Your task to perform on an android device: Go to Amazon Image 0: 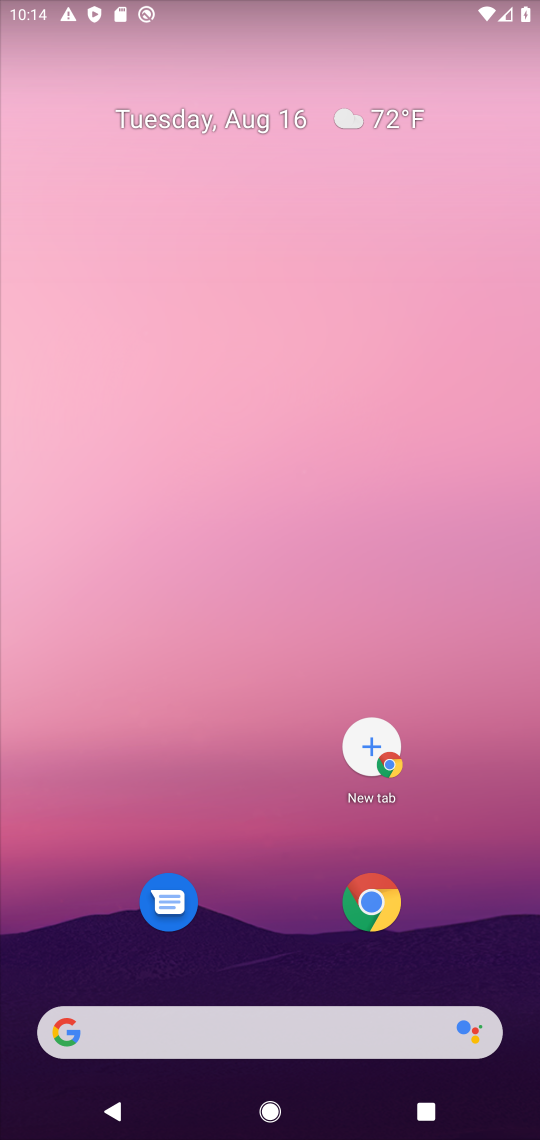
Step 0: press home button
Your task to perform on an android device: Go to Amazon Image 1: 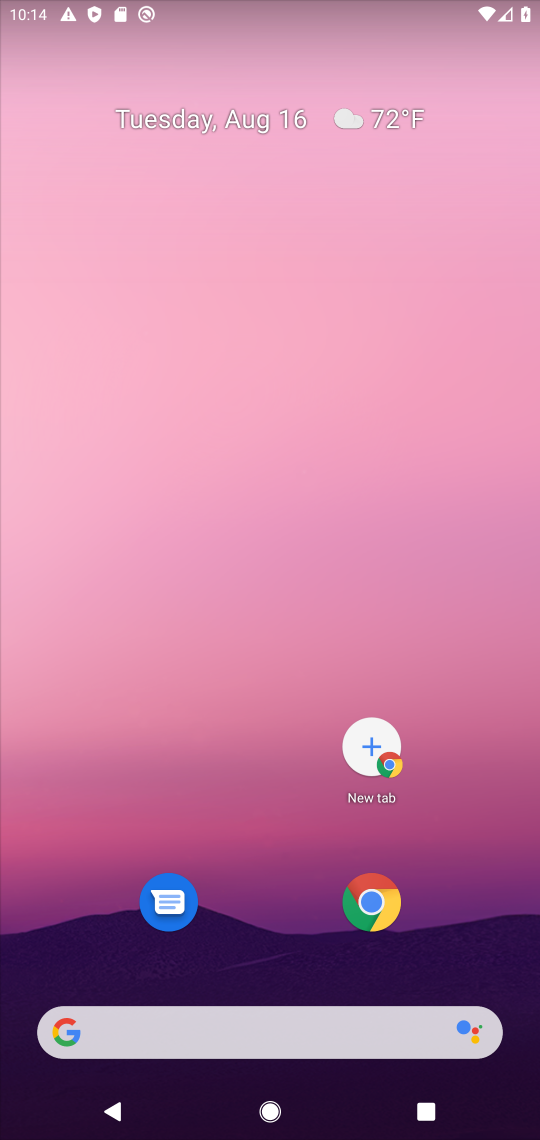
Step 1: drag from (225, 991) to (243, 506)
Your task to perform on an android device: Go to Amazon Image 2: 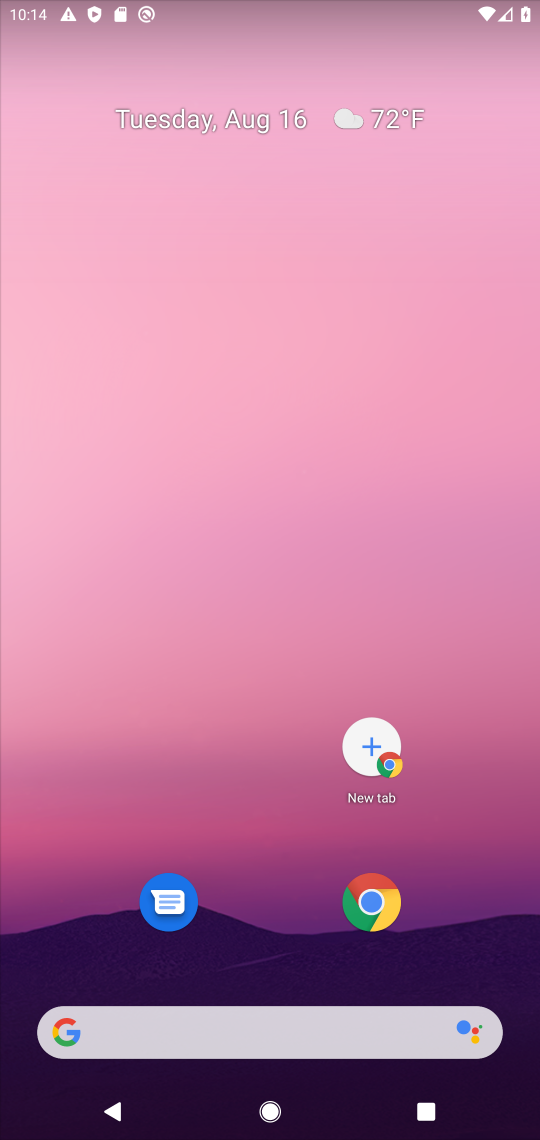
Step 2: drag from (250, 944) to (267, 172)
Your task to perform on an android device: Go to Amazon Image 3: 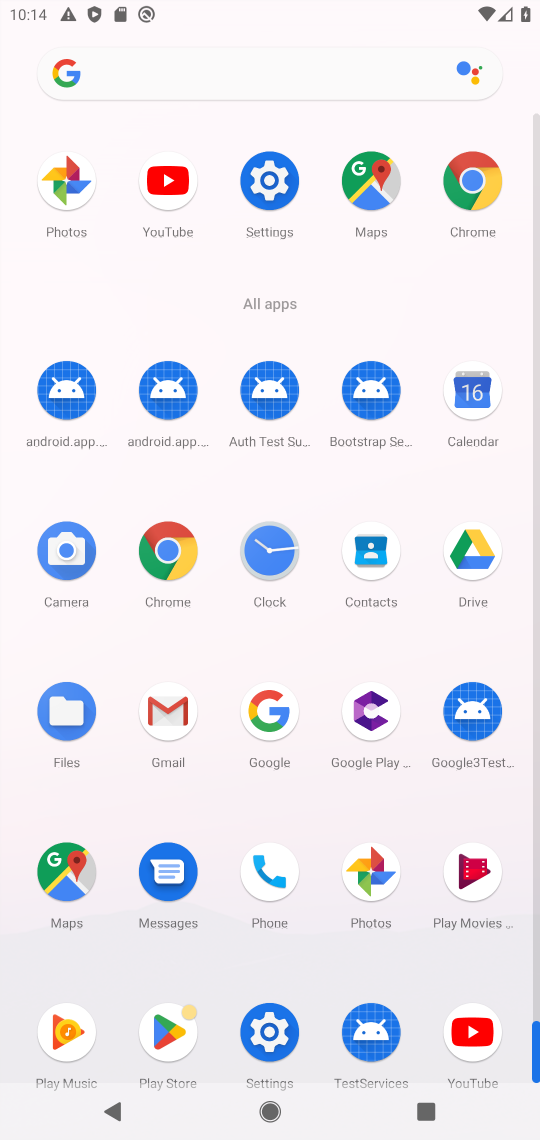
Step 3: click (267, 728)
Your task to perform on an android device: Go to Amazon Image 4: 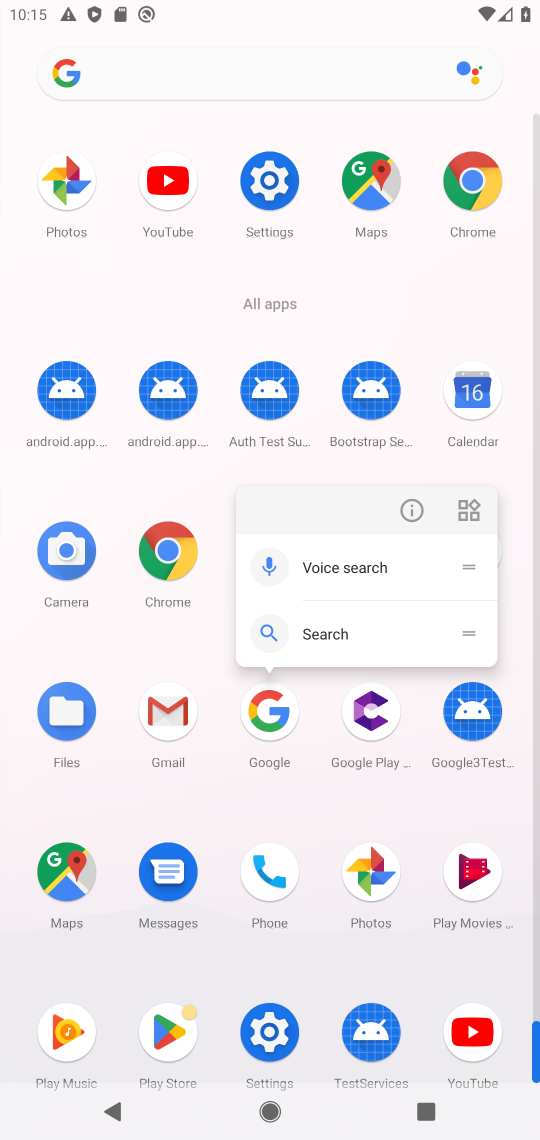
Step 4: click (279, 699)
Your task to perform on an android device: Go to Amazon Image 5: 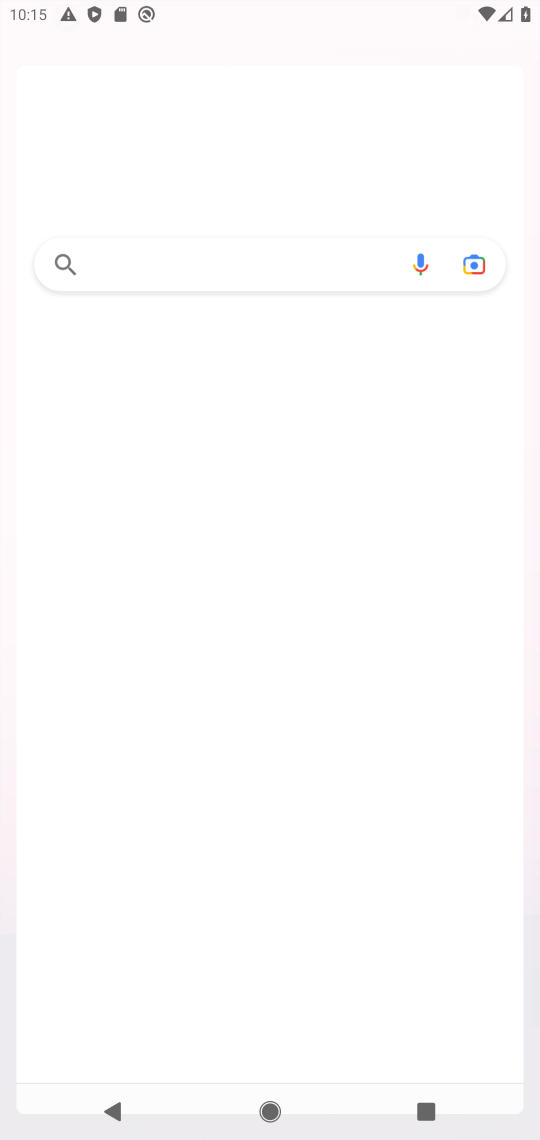
Step 5: click (275, 715)
Your task to perform on an android device: Go to Amazon Image 6: 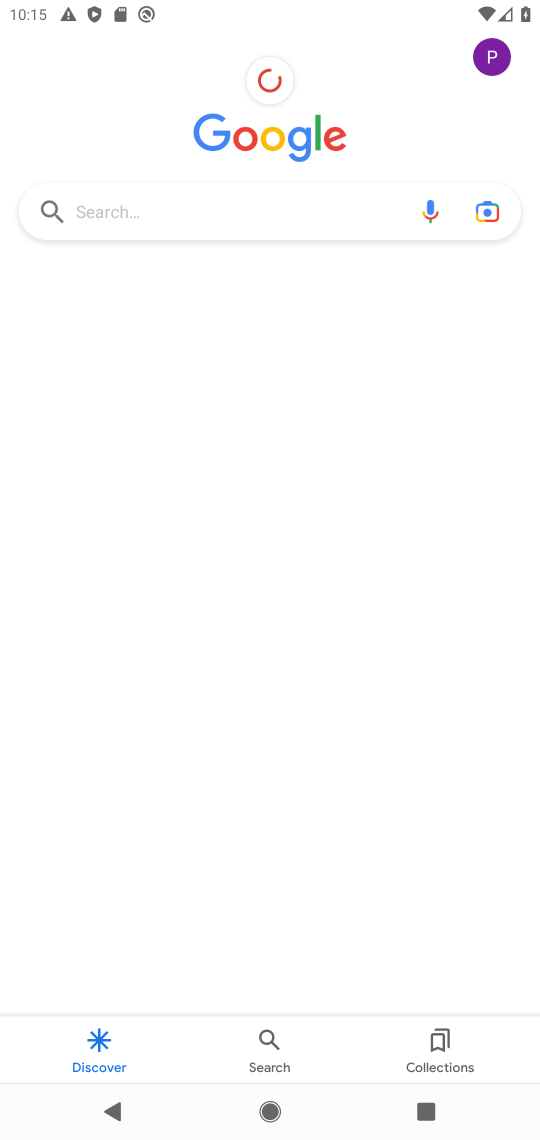
Step 6: click (101, 221)
Your task to perform on an android device: Go to Amazon Image 7: 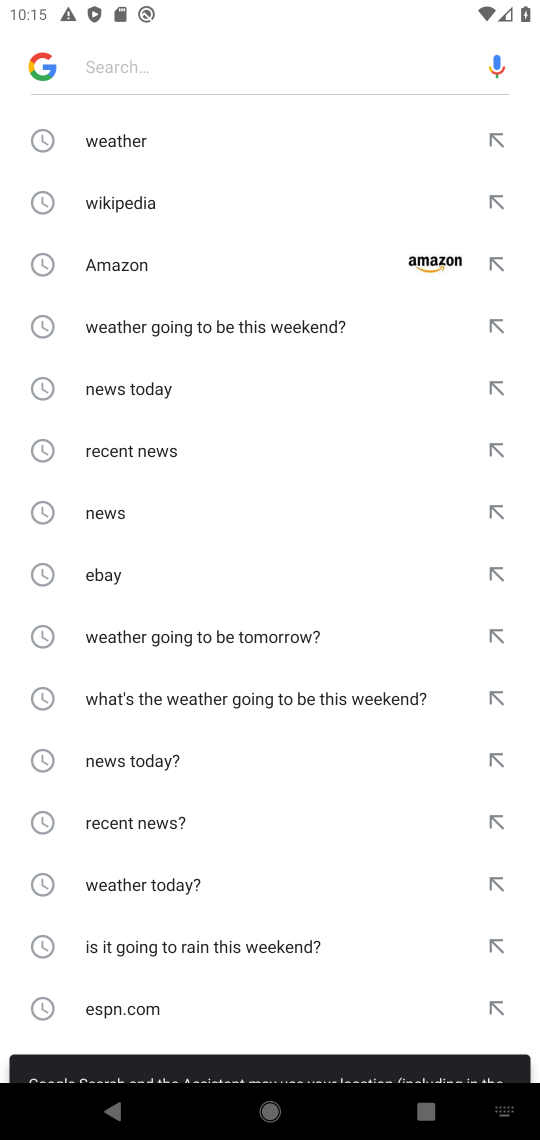
Step 7: click (163, 273)
Your task to perform on an android device: Go to Amazon Image 8: 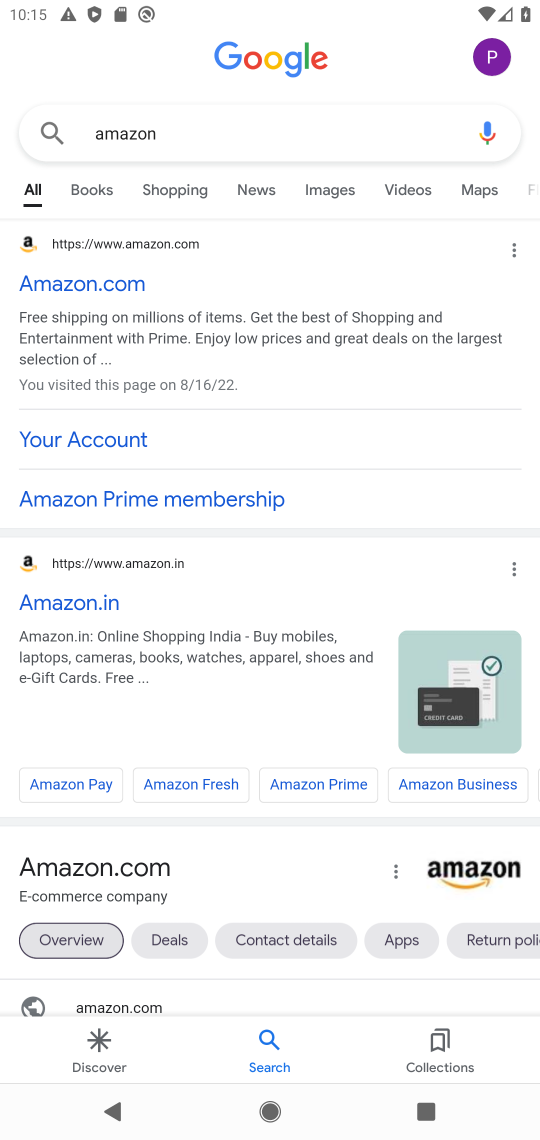
Step 8: click (124, 281)
Your task to perform on an android device: Go to Amazon Image 9: 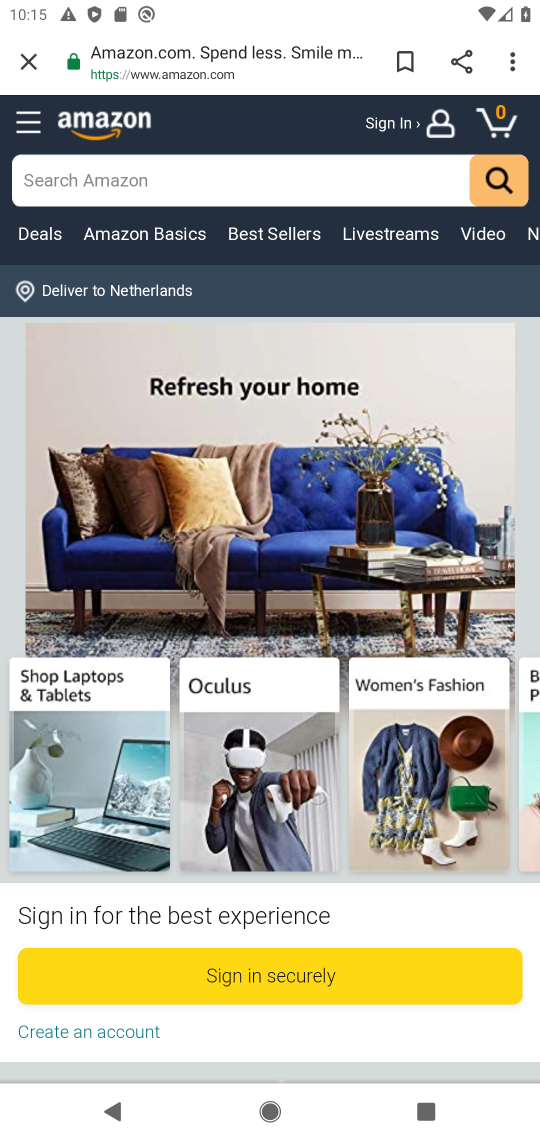
Step 9: task complete